Your task to perform on an android device: Check the news Image 0: 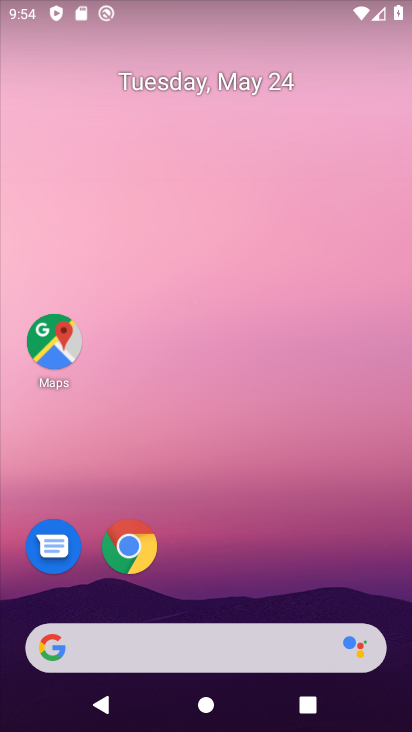
Step 0: drag from (348, 537) to (329, 81)
Your task to perform on an android device: Check the news Image 1: 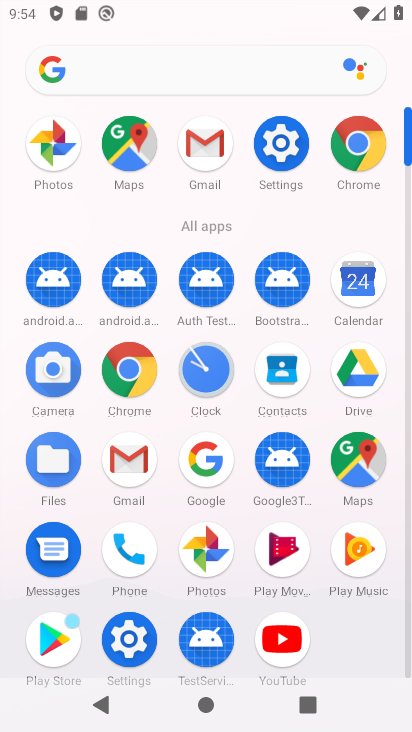
Step 1: click (354, 137)
Your task to perform on an android device: Check the news Image 2: 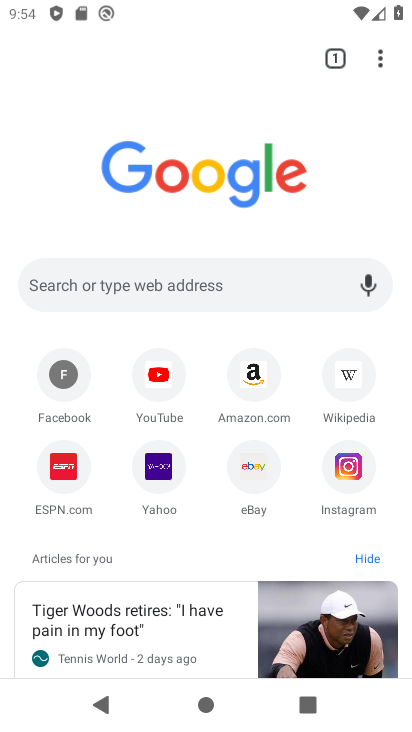
Step 2: click (182, 281)
Your task to perform on an android device: Check the news Image 3: 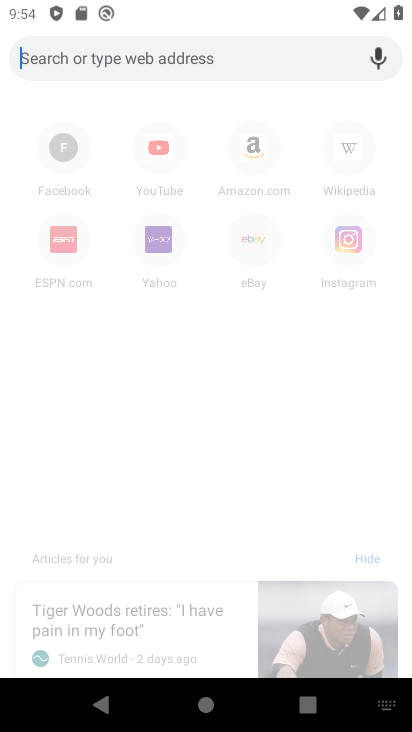
Step 3: type "news"
Your task to perform on an android device: Check the news Image 4: 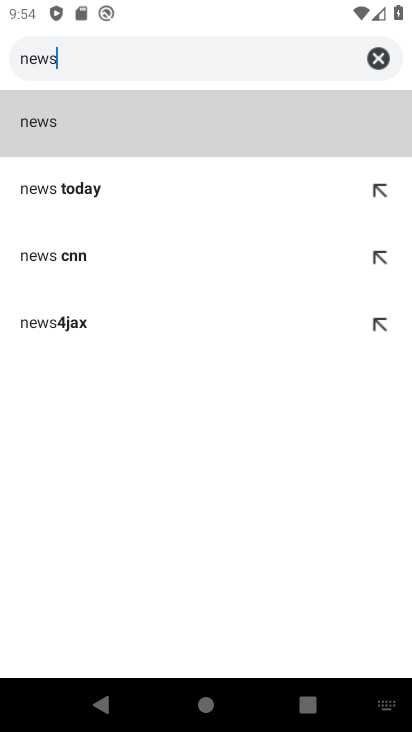
Step 4: click (43, 117)
Your task to perform on an android device: Check the news Image 5: 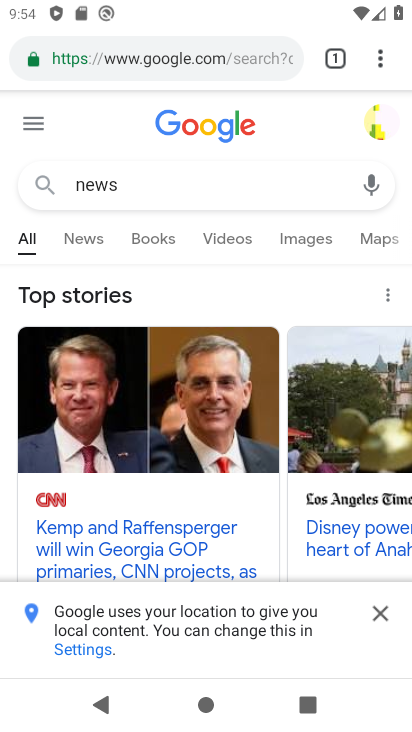
Step 5: click (95, 233)
Your task to perform on an android device: Check the news Image 6: 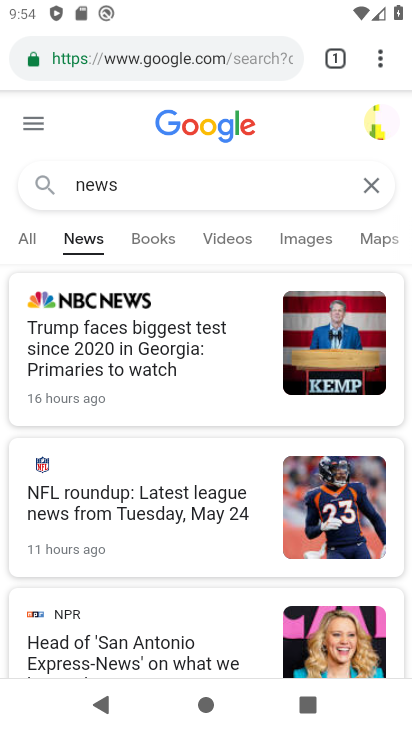
Step 6: task complete